Your task to perform on an android device: Open Wikipedia Image 0: 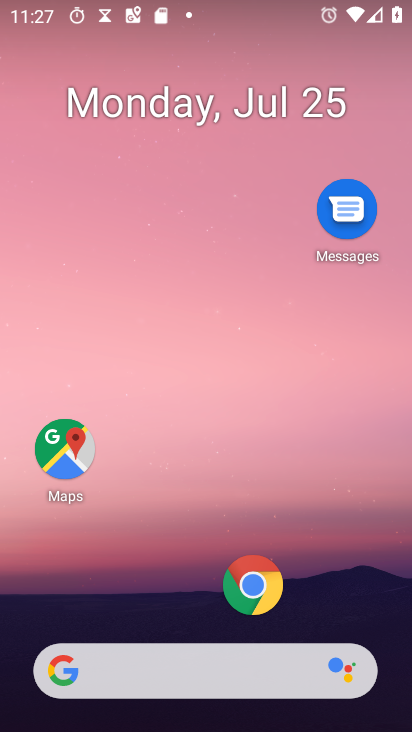
Step 0: press home button
Your task to perform on an android device: Open Wikipedia Image 1: 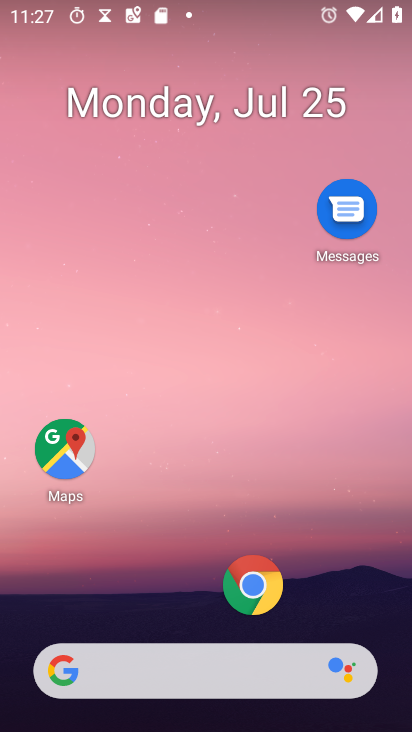
Step 1: click (255, 585)
Your task to perform on an android device: Open Wikipedia Image 2: 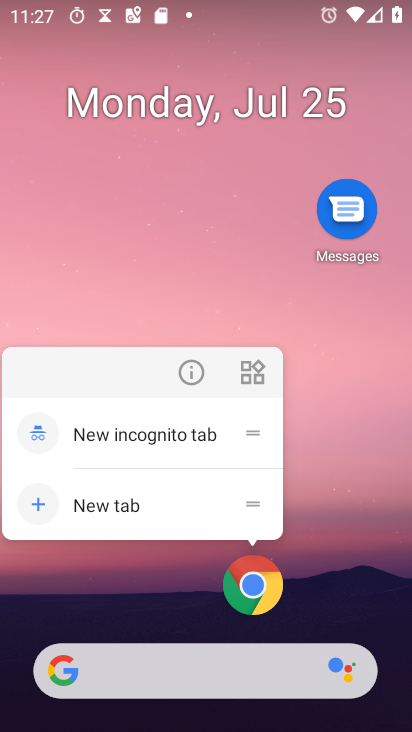
Step 2: click (255, 585)
Your task to perform on an android device: Open Wikipedia Image 3: 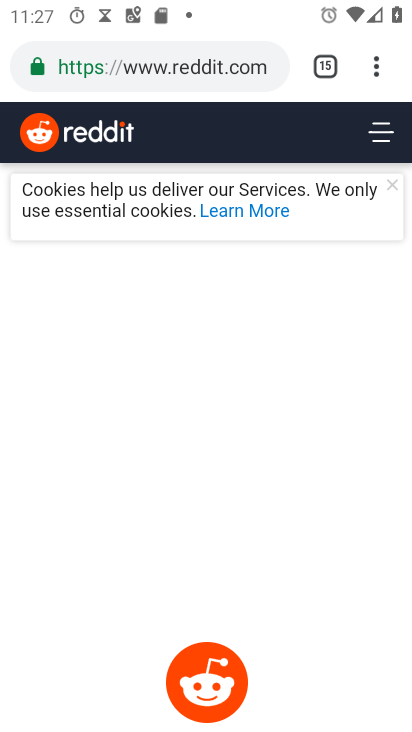
Step 3: drag from (372, 69) to (200, 135)
Your task to perform on an android device: Open Wikipedia Image 4: 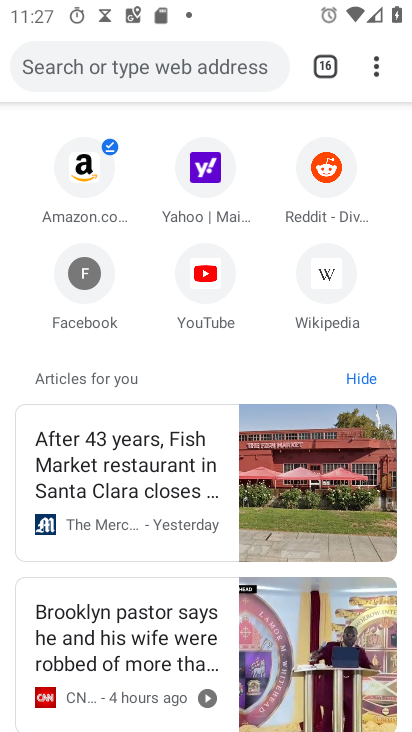
Step 4: click (322, 283)
Your task to perform on an android device: Open Wikipedia Image 5: 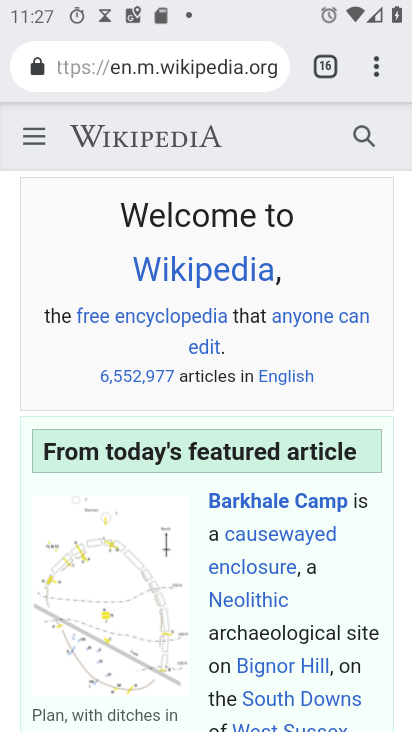
Step 5: task complete